Your task to perform on an android device: Search for Mexican restaurants on Maps Image 0: 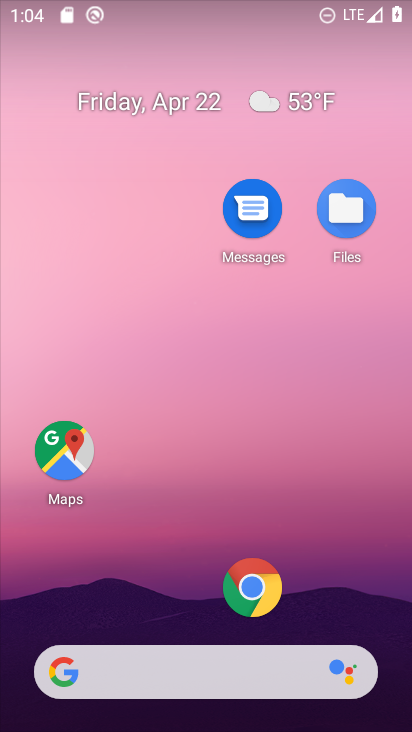
Step 0: click (65, 454)
Your task to perform on an android device: Search for Mexican restaurants on Maps Image 1: 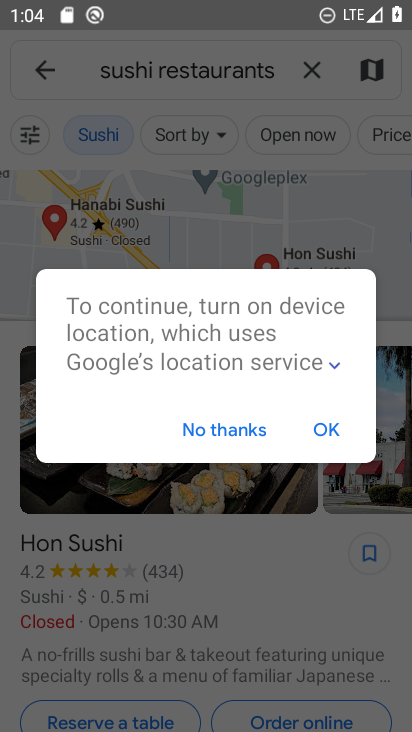
Step 1: click (330, 428)
Your task to perform on an android device: Search for Mexican restaurants on Maps Image 2: 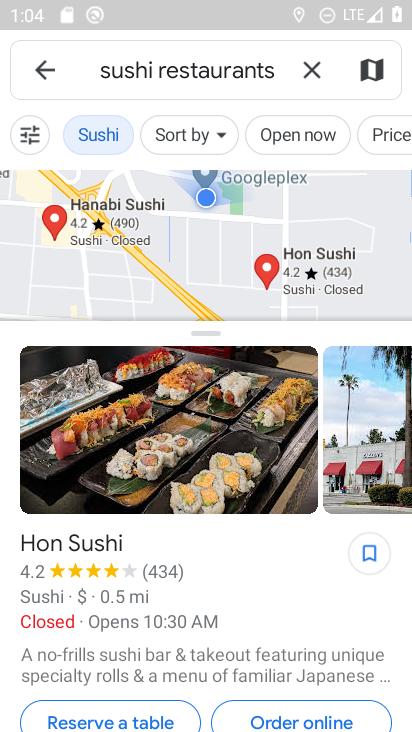
Step 2: click (313, 62)
Your task to perform on an android device: Search for Mexican restaurants on Maps Image 3: 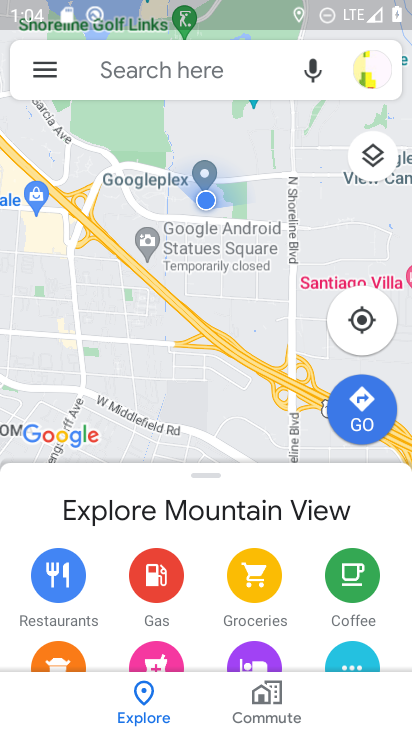
Step 3: type "Mexican restaurants"
Your task to perform on an android device: Search for Mexican restaurants on Maps Image 4: 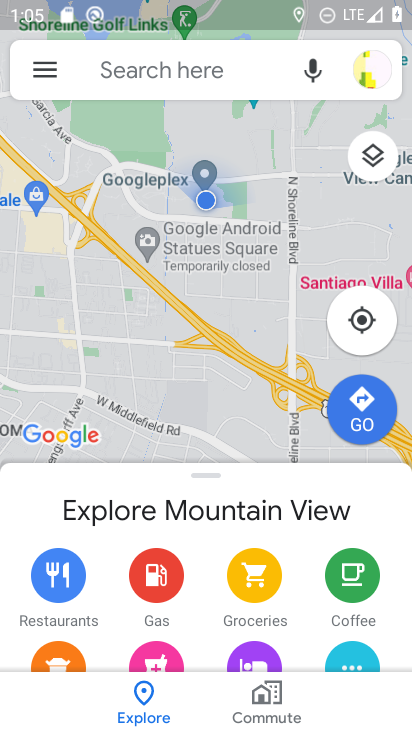
Step 4: click (122, 73)
Your task to perform on an android device: Search for Mexican restaurants on Maps Image 5: 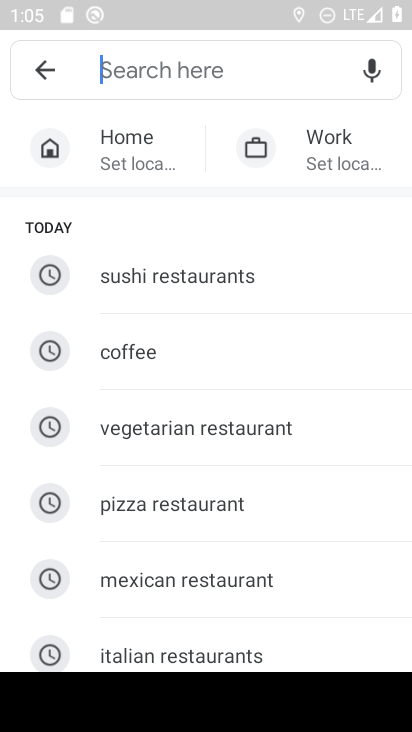
Step 5: type "Mexican restaurants"
Your task to perform on an android device: Search for Mexican restaurants on Maps Image 6: 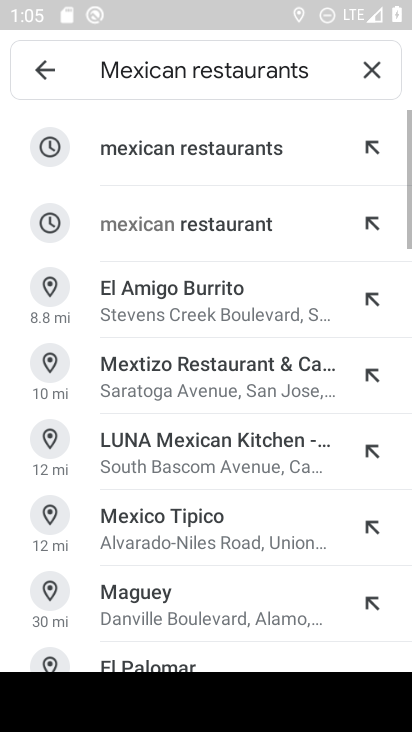
Step 6: click (203, 167)
Your task to perform on an android device: Search for Mexican restaurants on Maps Image 7: 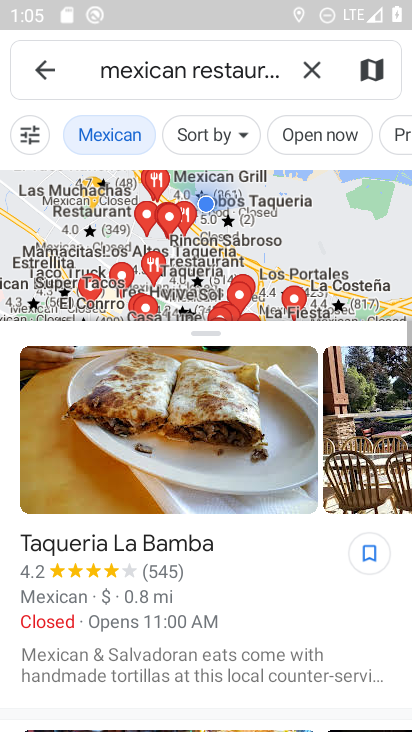
Step 7: task complete